Your task to perform on an android device: Show me recent news Image 0: 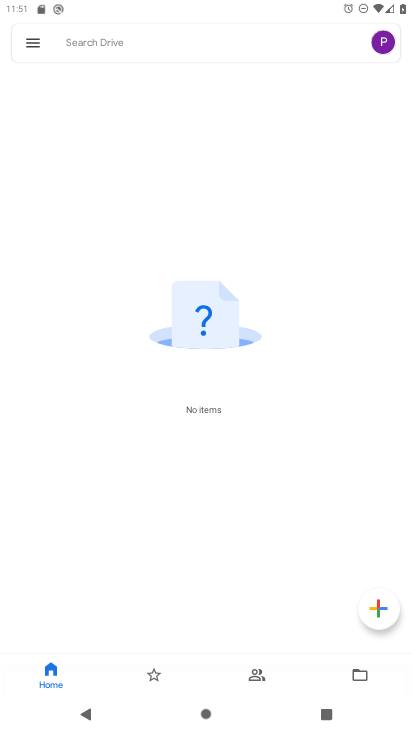
Step 0: press home button
Your task to perform on an android device: Show me recent news Image 1: 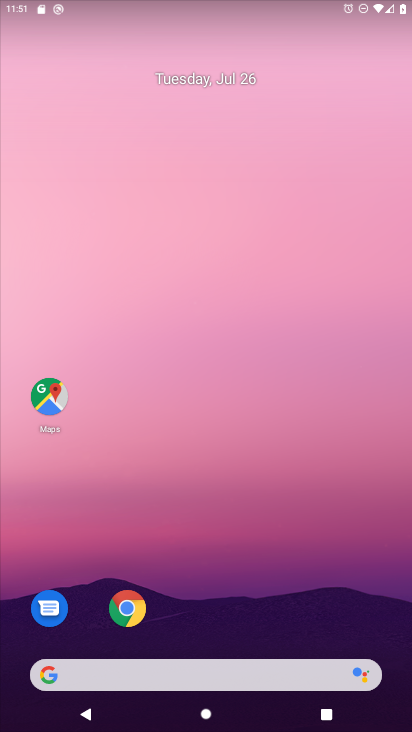
Step 1: drag from (328, 567) to (291, 78)
Your task to perform on an android device: Show me recent news Image 2: 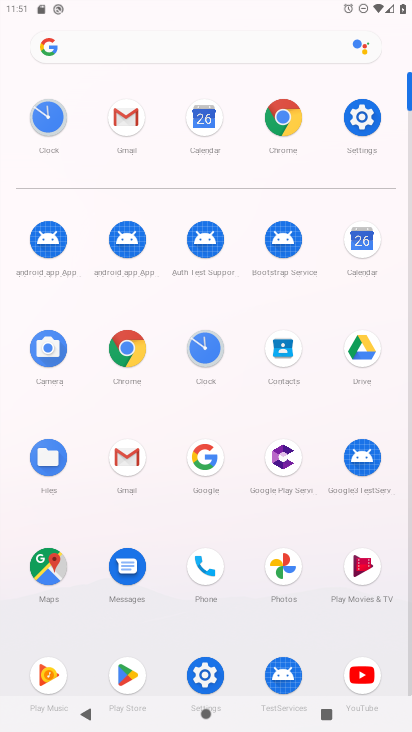
Step 2: click (283, 117)
Your task to perform on an android device: Show me recent news Image 3: 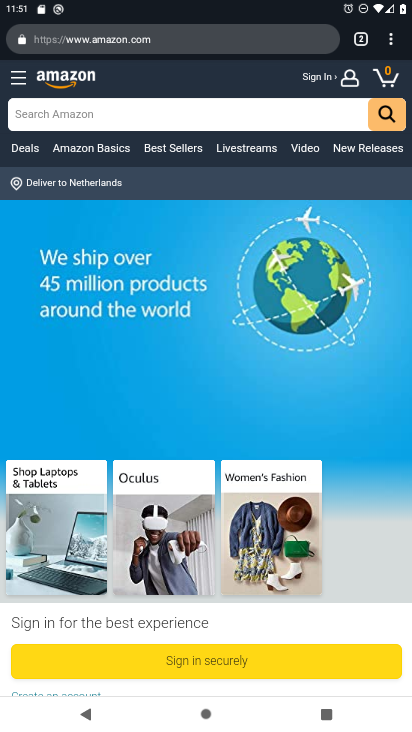
Step 3: click (228, 47)
Your task to perform on an android device: Show me recent news Image 4: 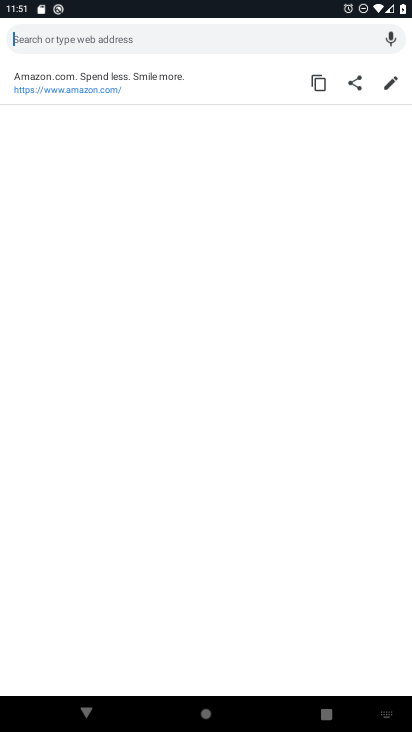
Step 4: type "news"
Your task to perform on an android device: Show me recent news Image 5: 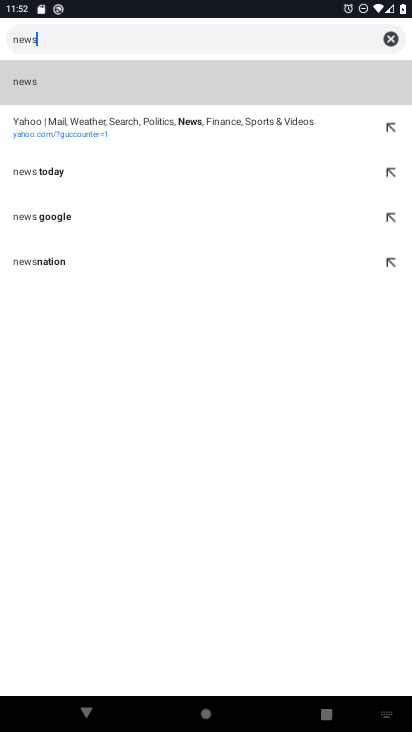
Step 5: click (22, 84)
Your task to perform on an android device: Show me recent news Image 6: 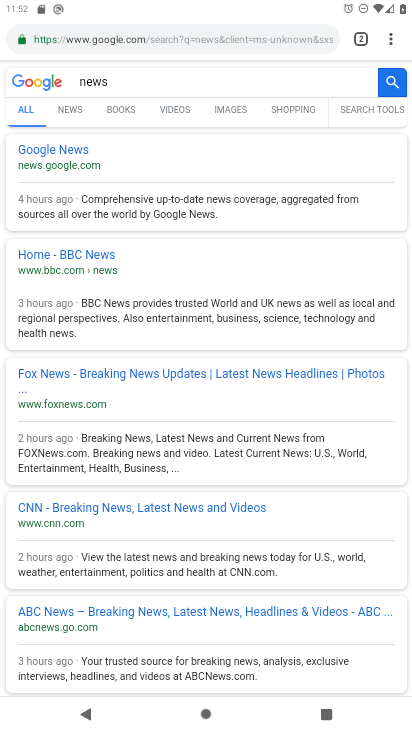
Step 6: click (45, 157)
Your task to perform on an android device: Show me recent news Image 7: 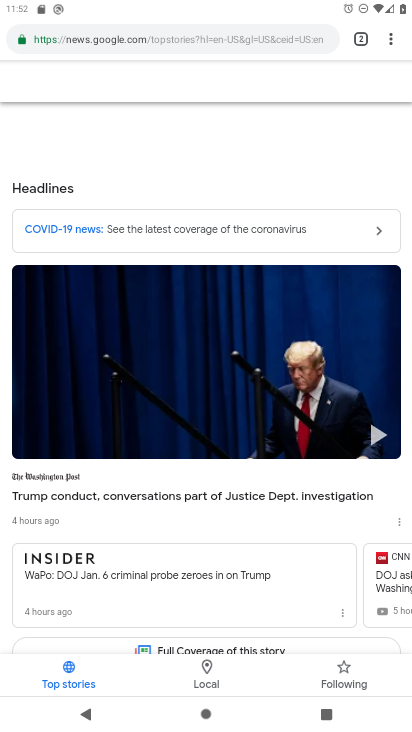
Step 7: task complete